Your task to perform on an android device: Open my contact list Image 0: 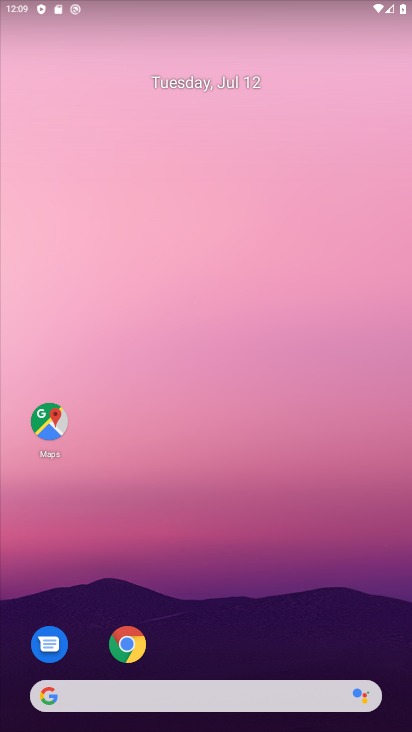
Step 0: drag from (70, 550) to (227, 78)
Your task to perform on an android device: Open my contact list Image 1: 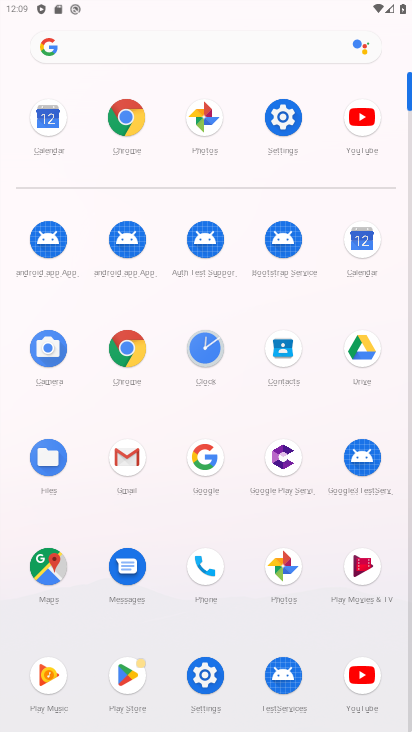
Step 1: click (278, 350)
Your task to perform on an android device: Open my contact list Image 2: 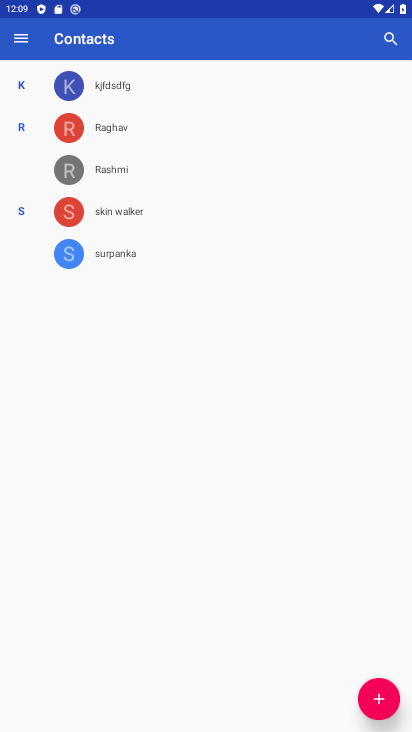
Step 2: task complete